Your task to perform on an android device: Search for Italian restaurants on Maps Image 0: 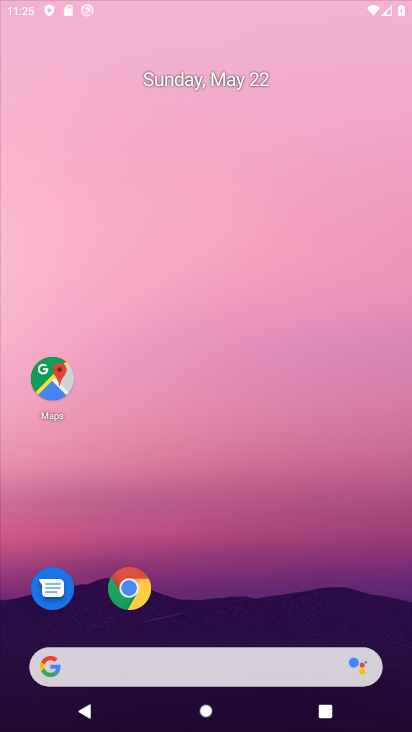
Step 0: click (248, 51)
Your task to perform on an android device: Search for Italian restaurants on Maps Image 1: 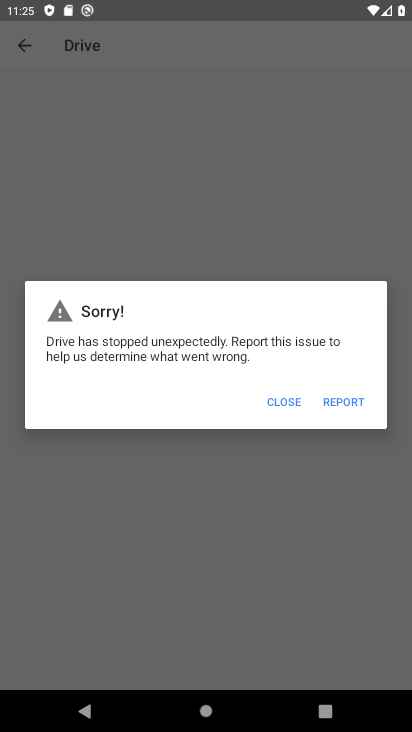
Step 1: press home button
Your task to perform on an android device: Search for Italian restaurants on Maps Image 2: 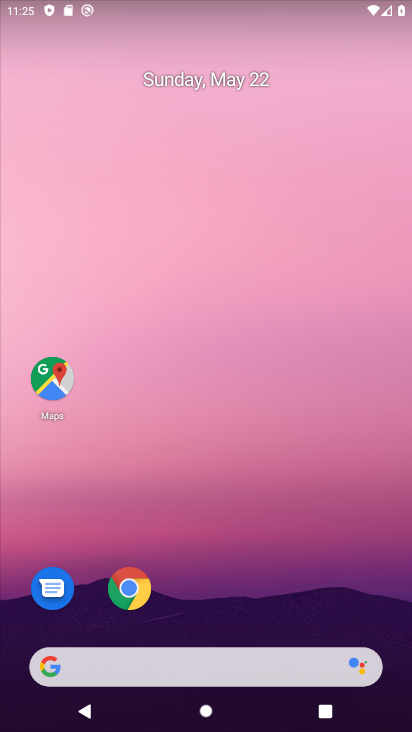
Step 2: drag from (255, 692) to (251, 131)
Your task to perform on an android device: Search for Italian restaurants on Maps Image 3: 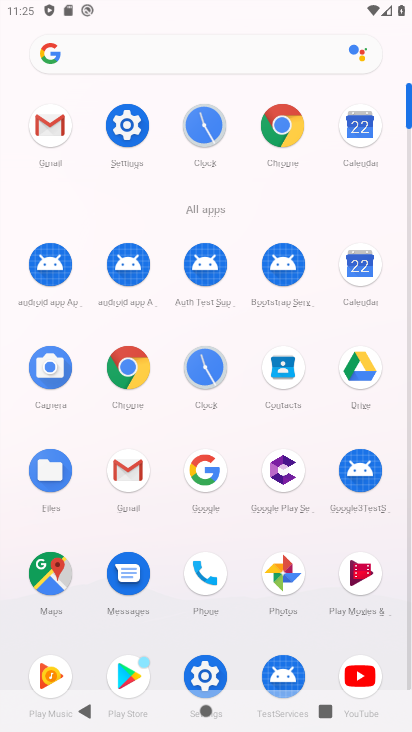
Step 3: click (43, 570)
Your task to perform on an android device: Search for Italian restaurants on Maps Image 4: 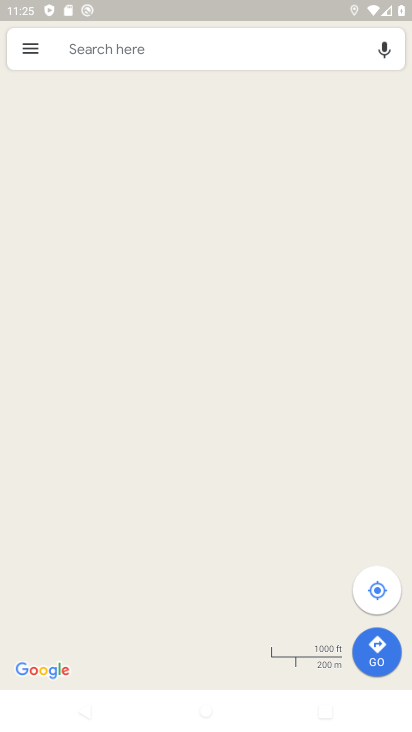
Step 4: click (177, 55)
Your task to perform on an android device: Search for Italian restaurants on Maps Image 5: 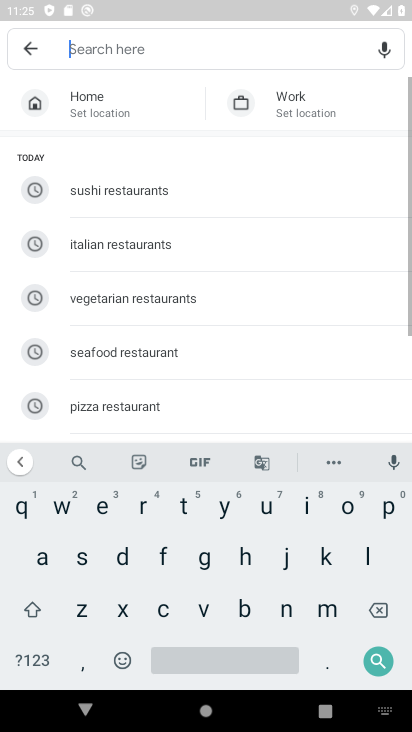
Step 5: click (296, 502)
Your task to perform on an android device: Search for Italian restaurants on Maps Image 6: 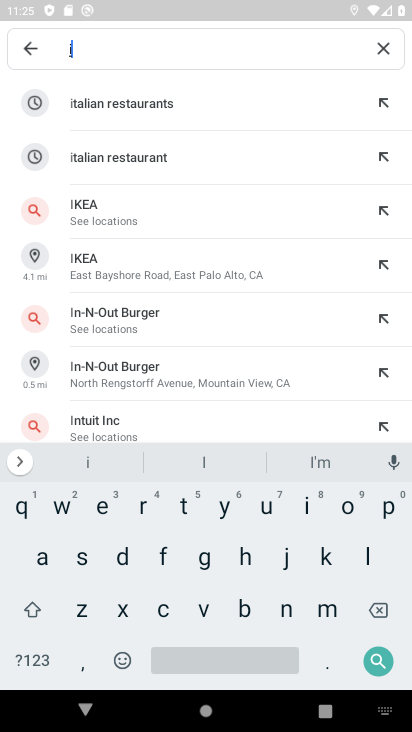
Step 6: click (144, 106)
Your task to perform on an android device: Search for Italian restaurants on Maps Image 7: 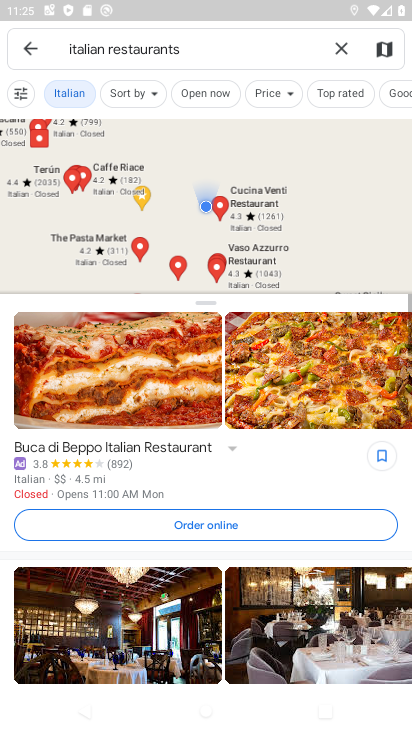
Step 7: task complete